Your task to perform on an android device: check android version Image 0: 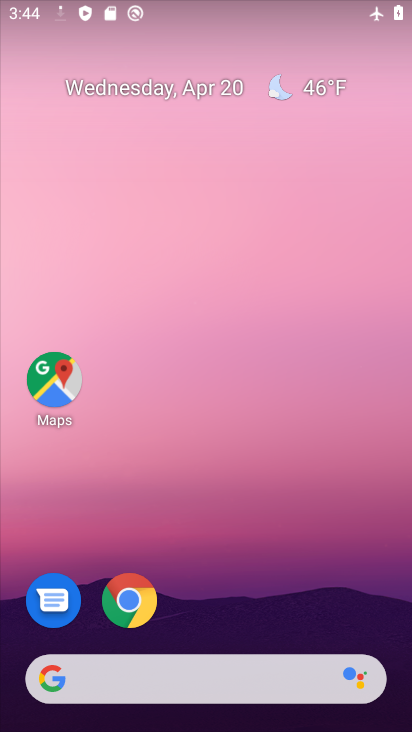
Step 0: drag from (201, 615) to (226, 26)
Your task to perform on an android device: check android version Image 1: 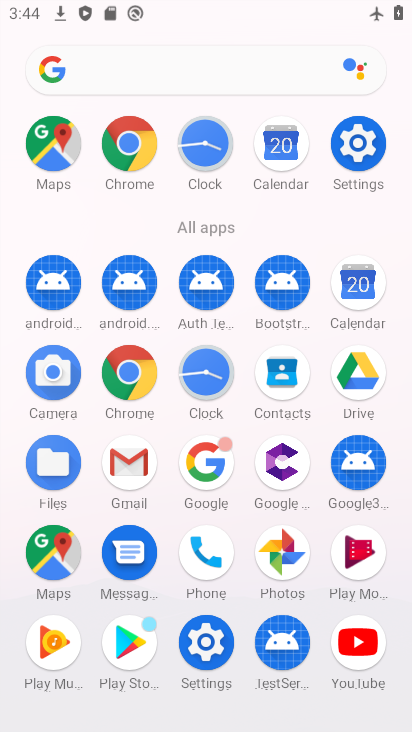
Step 1: click (363, 148)
Your task to perform on an android device: check android version Image 2: 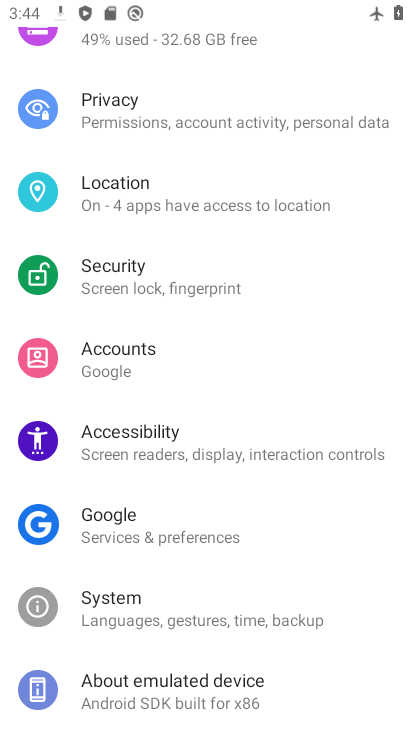
Step 2: drag from (209, 660) to (240, 93)
Your task to perform on an android device: check android version Image 3: 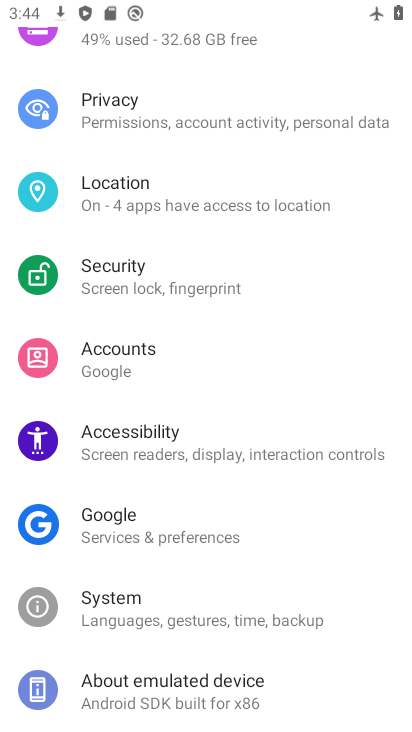
Step 3: drag from (216, 649) to (227, 103)
Your task to perform on an android device: check android version Image 4: 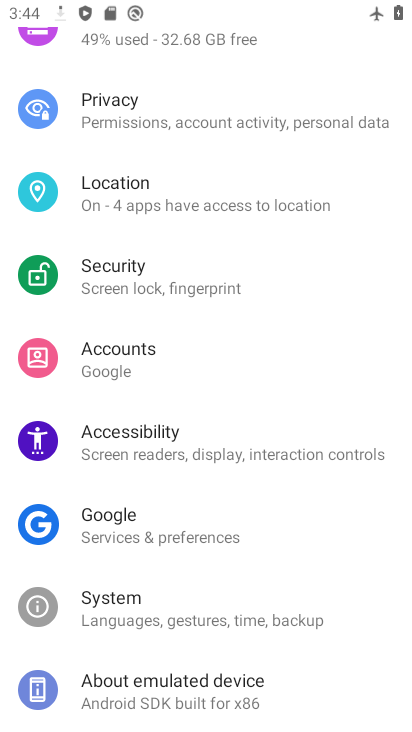
Step 4: click (240, 680)
Your task to perform on an android device: check android version Image 5: 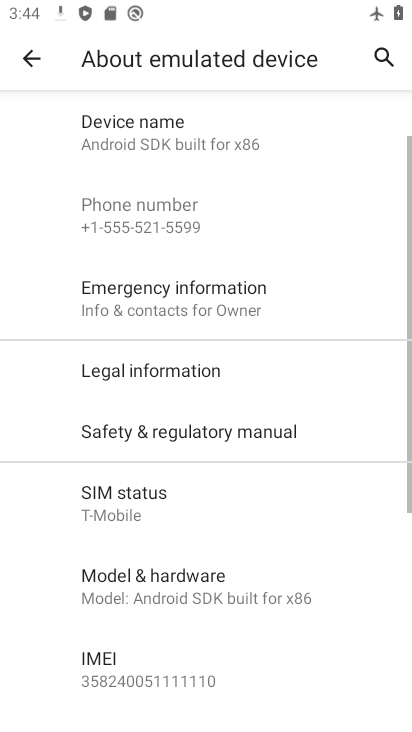
Step 5: drag from (230, 613) to (263, 140)
Your task to perform on an android device: check android version Image 6: 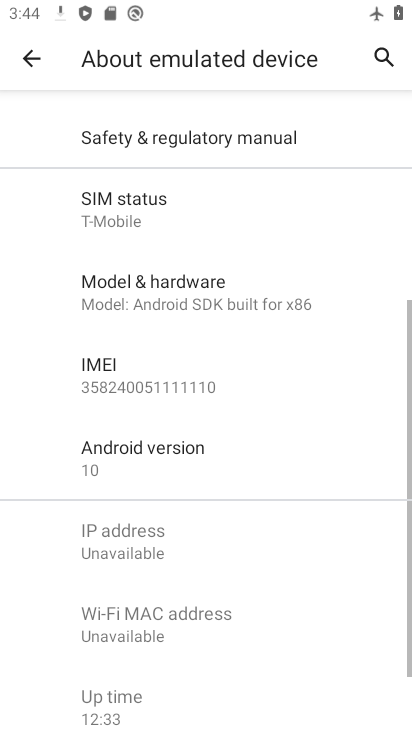
Step 6: click (223, 437)
Your task to perform on an android device: check android version Image 7: 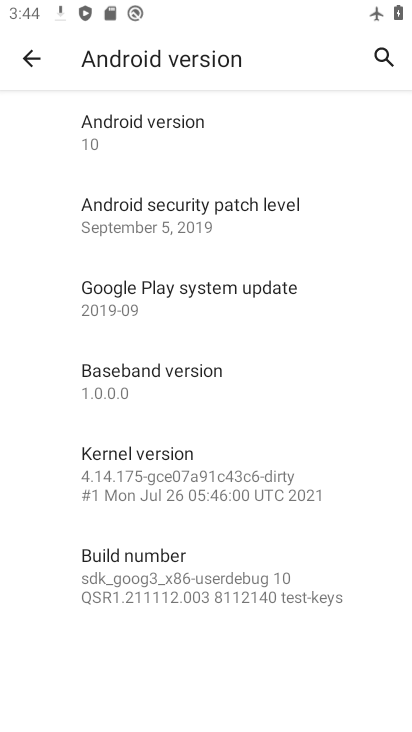
Step 7: task complete